Your task to perform on an android device: Open the map Image 0: 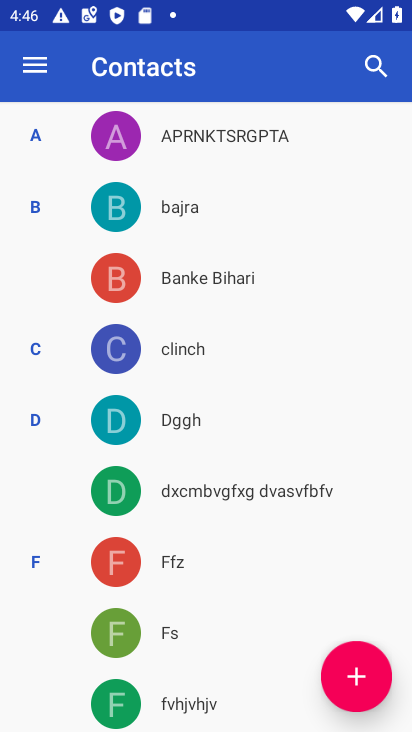
Step 0: press home button
Your task to perform on an android device: Open the map Image 1: 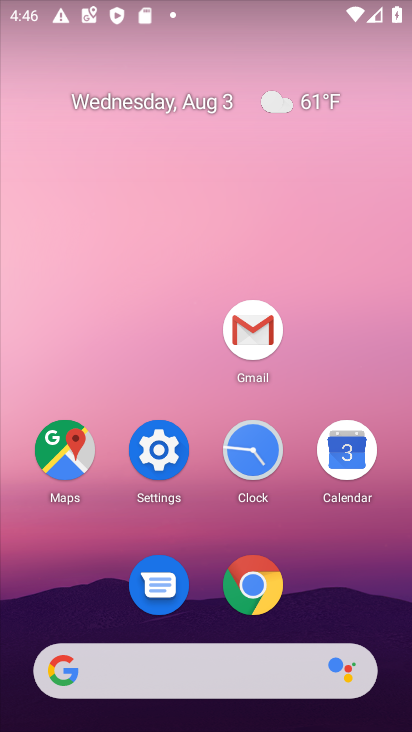
Step 1: click (63, 453)
Your task to perform on an android device: Open the map Image 2: 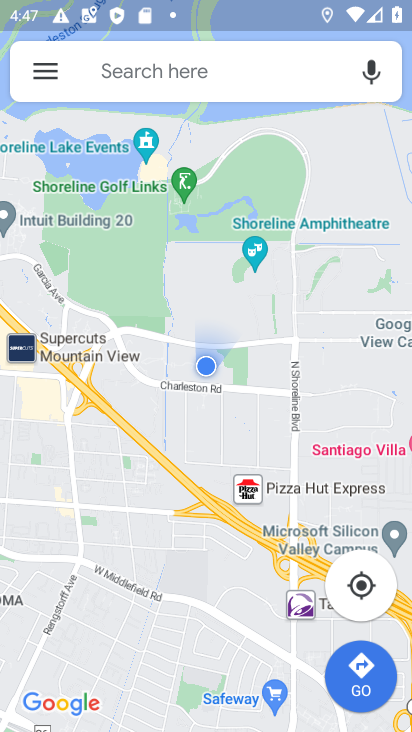
Step 2: task complete